Your task to perform on an android device: Open Chrome and go to settings Image 0: 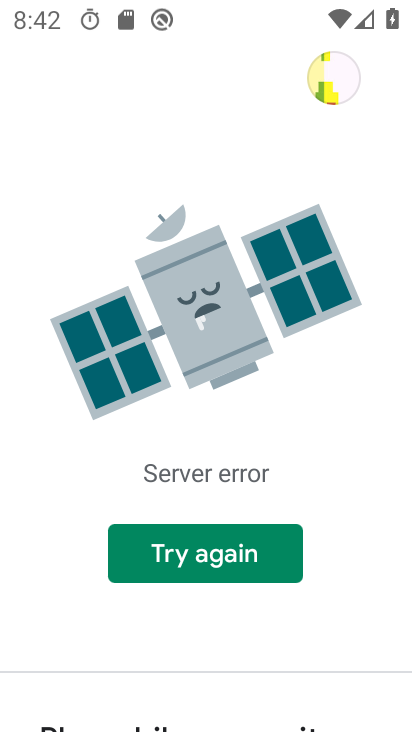
Step 0: press home button
Your task to perform on an android device: Open Chrome and go to settings Image 1: 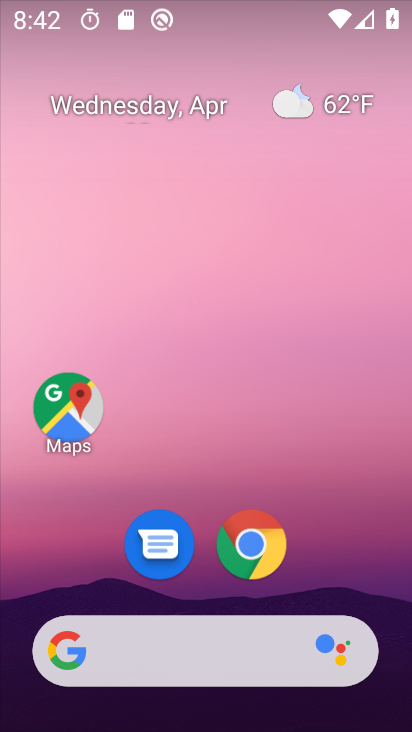
Step 1: click (248, 542)
Your task to perform on an android device: Open Chrome and go to settings Image 2: 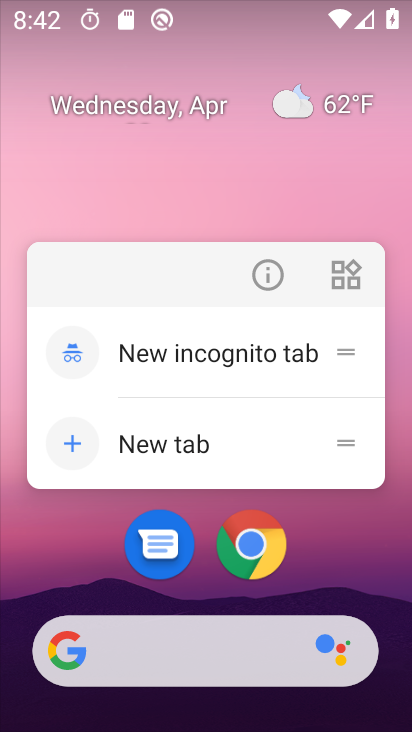
Step 2: click (250, 540)
Your task to perform on an android device: Open Chrome and go to settings Image 3: 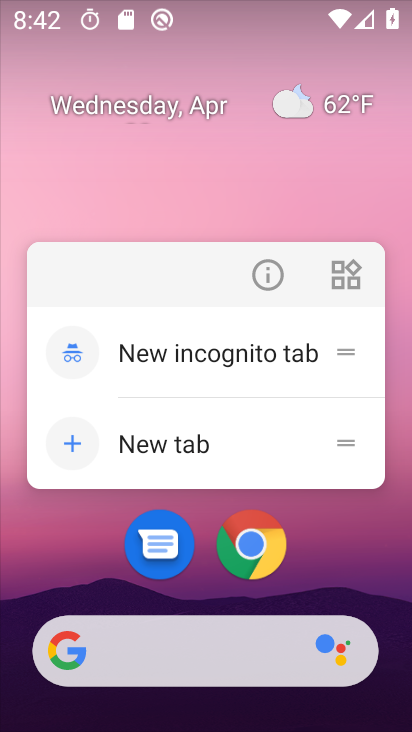
Step 3: click (250, 540)
Your task to perform on an android device: Open Chrome and go to settings Image 4: 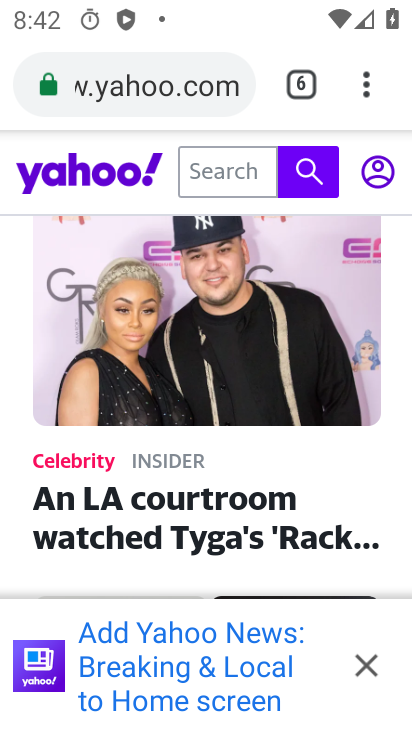
Step 4: task complete